Your task to perform on an android device: turn on wifi Image 0: 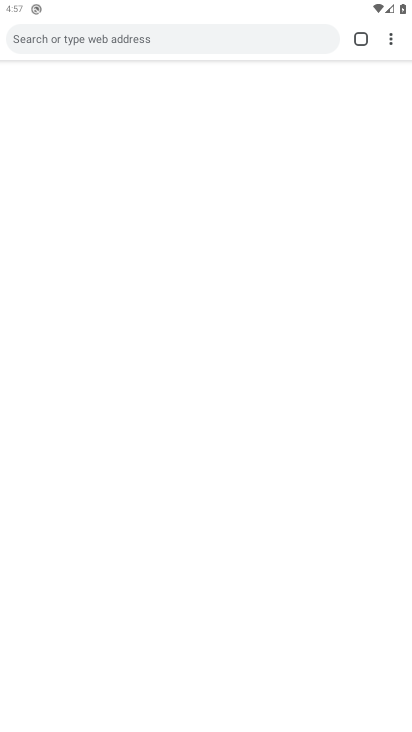
Step 0: drag from (221, 580) to (265, 283)
Your task to perform on an android device: turn on wifi Image 1: 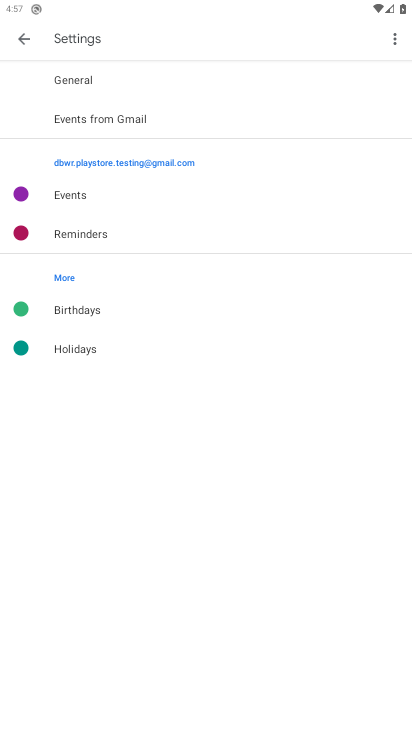
Step 1: press home button
Your task to perform on an android device: turn on wifi Image 2: 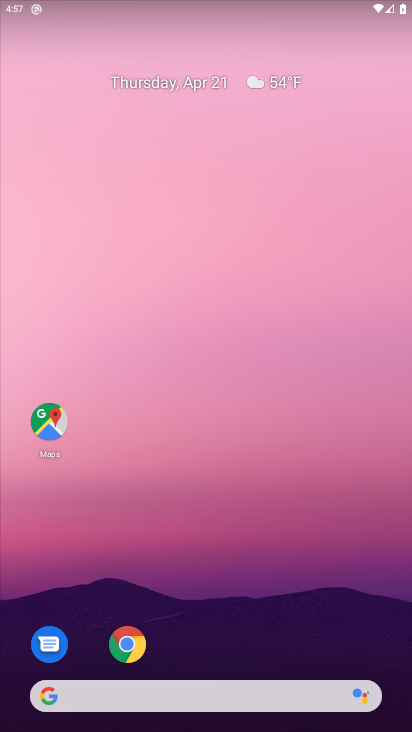
Step 2: click (215, 305)
Your task to perform on an android device: turn on wifi Image 3: 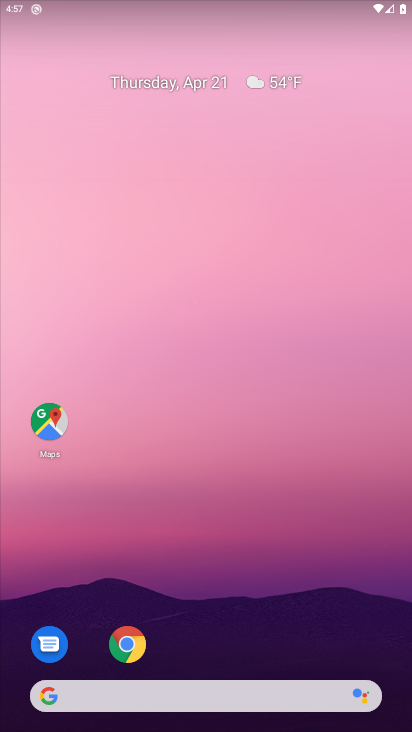
Step 3: drag from (250, 442) to (255, 510)
Your task to perform on an android device: turn on wifi Image 4: 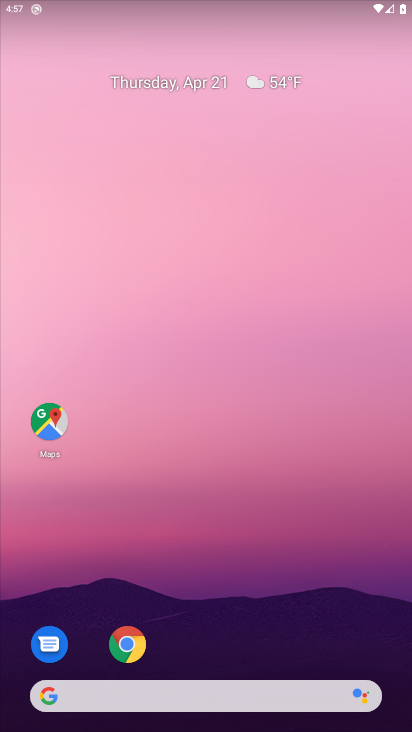
Step 4: drag from (186, 675) to (225, 186)
Your task to perform on an android device: turn on wifi Image 5: 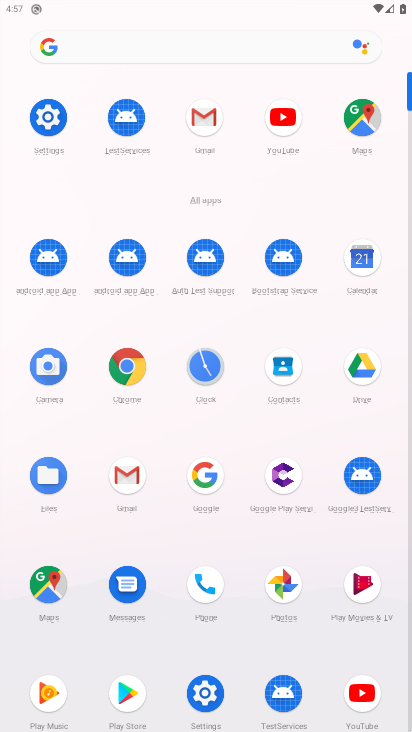
Step 5: click (205, 685)
Your task to perform on an android device: turn on wifi Image 6: 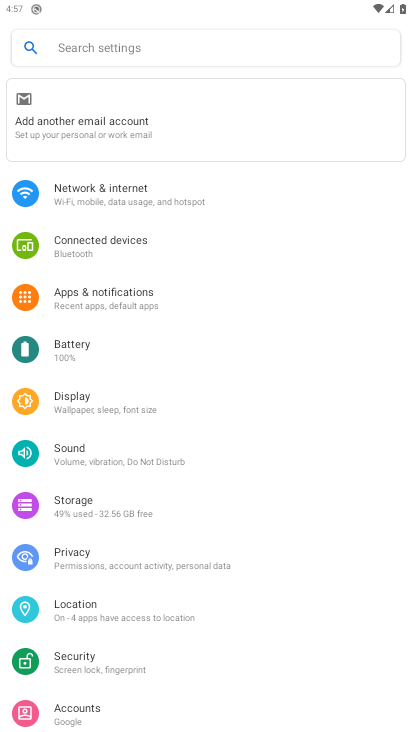
Step 6: click (97, 191)
Your task to perform on an android device: turn on wifi Image 7: 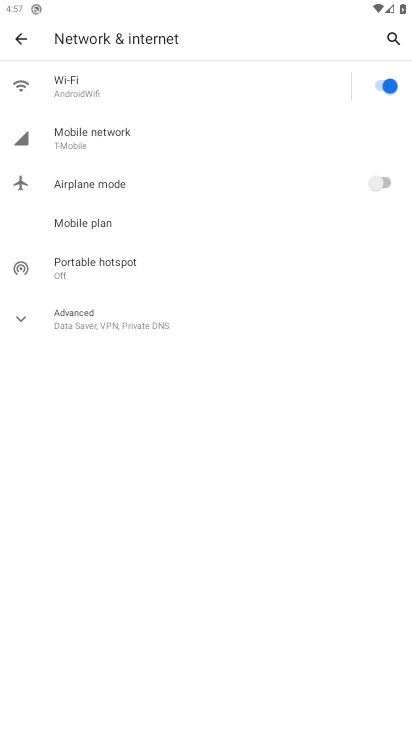
Step 7: task complete